Your task to perform on an android device: turn on translation in the chrome app Image 0: 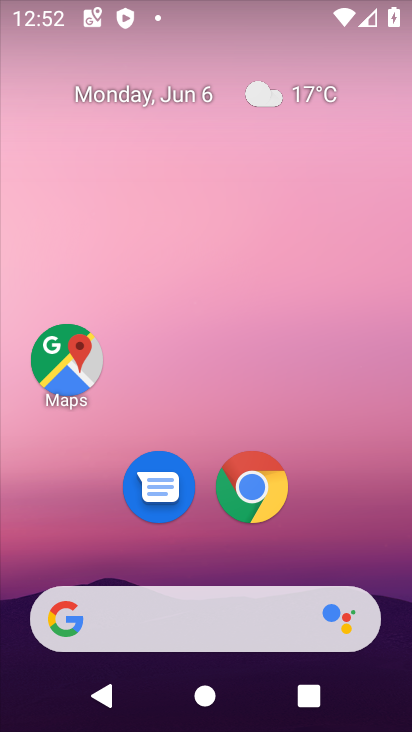
Step 0: click (240, 491)
Your task to perform on an android device: turn on translation in the chrome app Image 1: 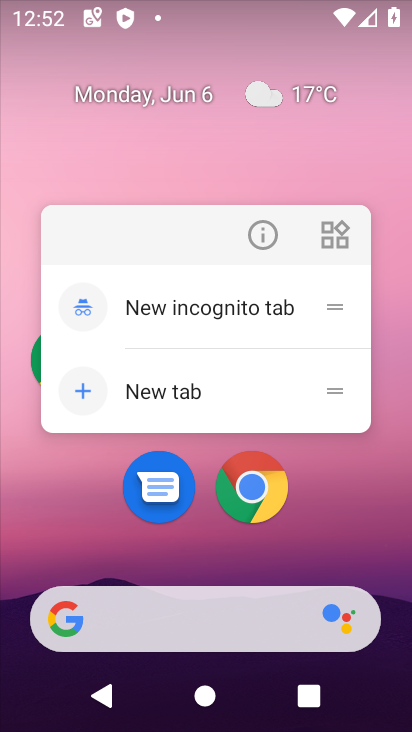
Step 1: click (244, 491)
Your task to perform on an android device: turn on translation in the chrome app Image 2: 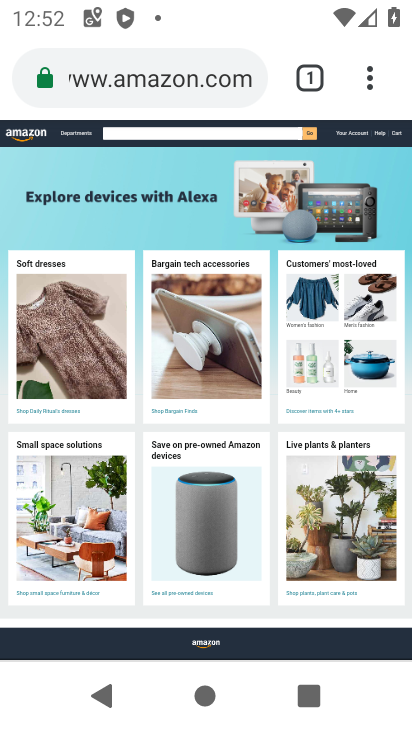
Step 2: drag from (362, 73) to (98, 547)
Your task to perform on an android device: turn on translation in the chrome app Image 3: 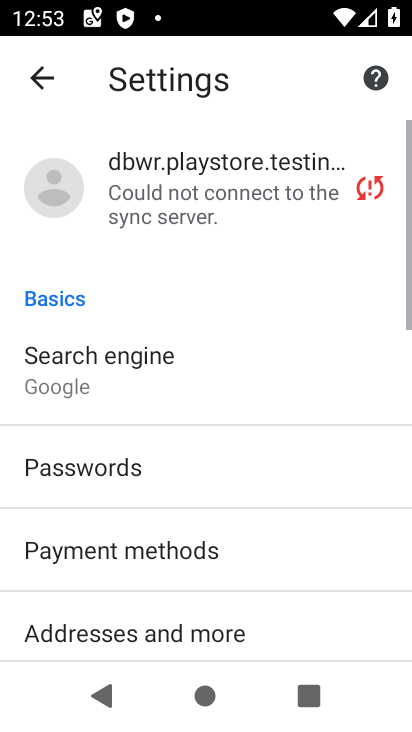
Step 3: drag from (142, 635) to (215, 103)
Your task to perform on an android device: turn on translation in the chrome app Image 4: 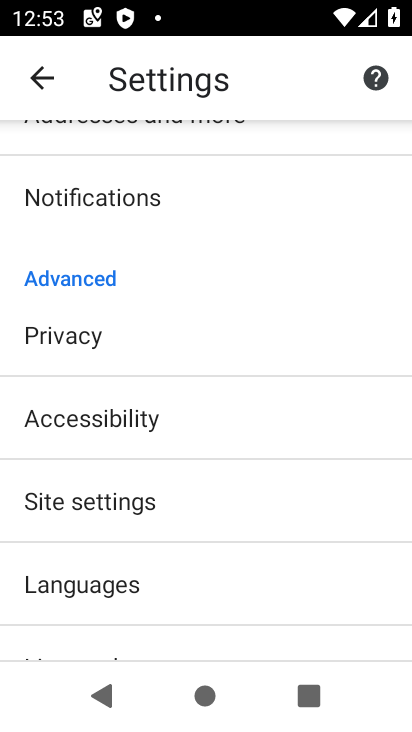
Step 4: click (134, 594)
Your task to perform on an android device: turn on translation in the chrome app Image 5: 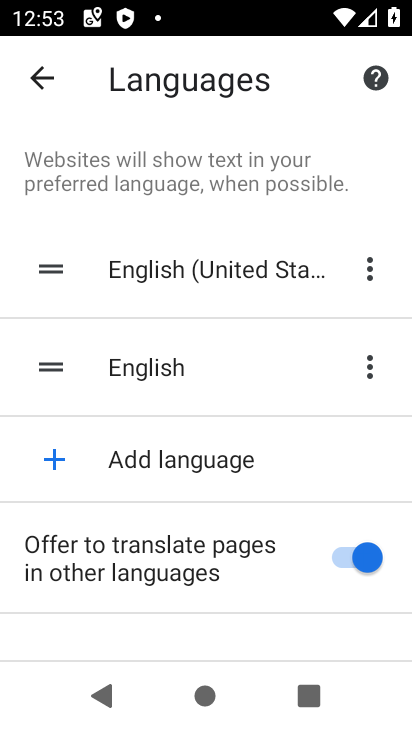
Step 5: task complete